Your task to perform on an android device: toggle data saver in the chrome app Image 0: 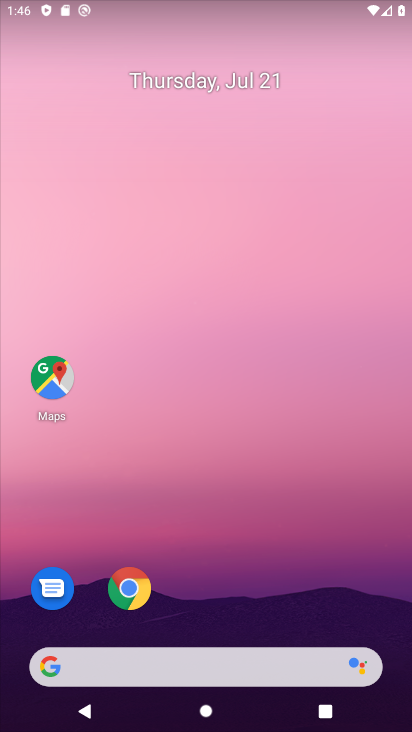
Step 0: click (131, 586)
Your task to perform on an android device: toggle data saver in the chrome app Image 1: 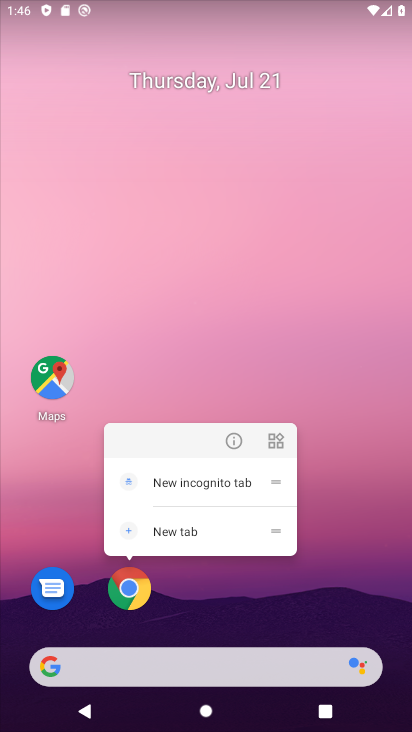
Step 1: click (131, 586)
Your task to perform on an android device: toggle data saver in the chrome app Image 2: 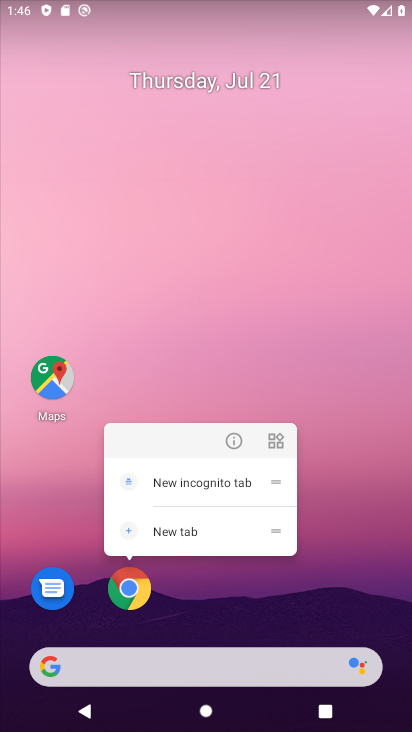
Step 2: click (131, 586)
Your task to perform on an android device: toggle data saver in the chrome app Image 3: 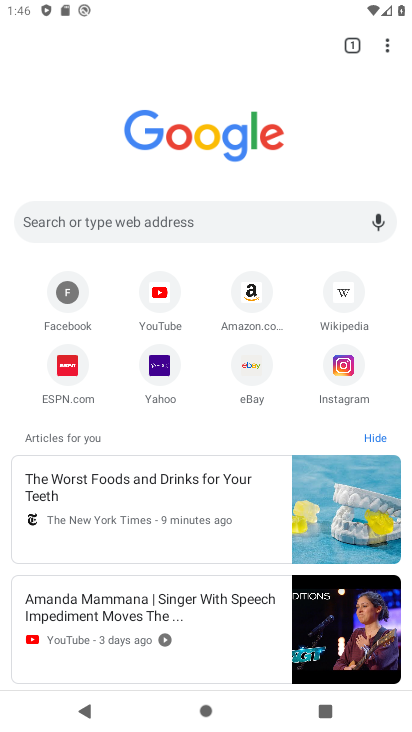
Step 3: click (387, 43)
Your task to perform on an android device: toggle data saver in the chrome app Image 4: 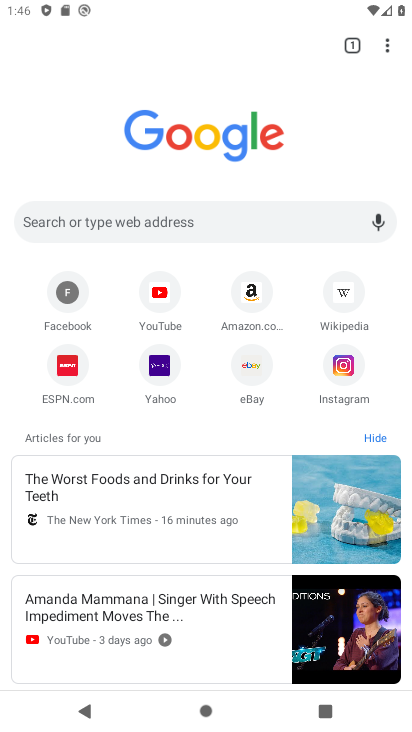
Step 4: click (387, 43)
Your task to perform on an android device: toggle data saver in the chrome app Image 5: 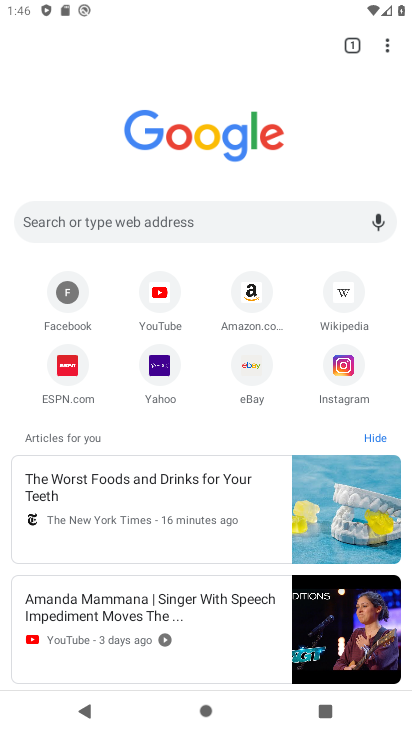
Step 5: click (387, 43)
Your task to perform on an android device: toggle data saver in the chrome app Image 6: 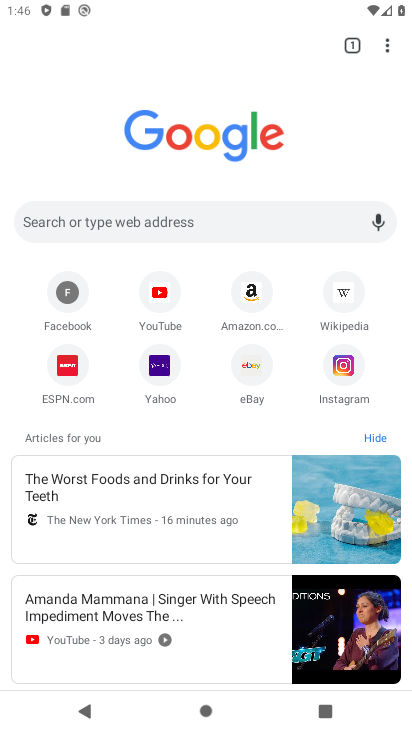
Step 6: click (387, 43)
Your task to perform on an android device: toggle data saver in the chrome app Image 7: 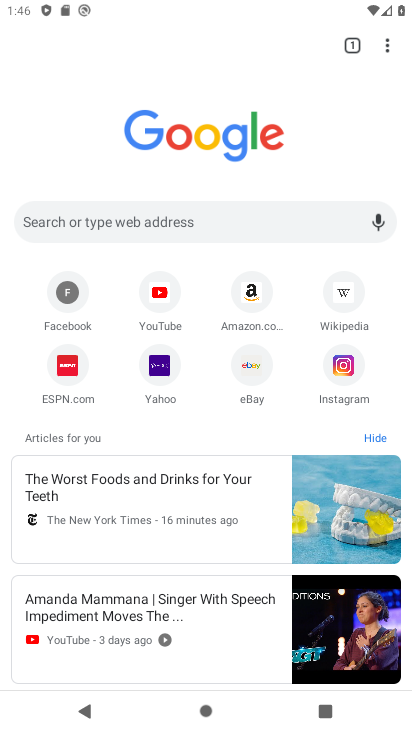
Step 7: click (387, 43)
Your task to perform on an android device: toggle data saver in the chrome app Image 8: 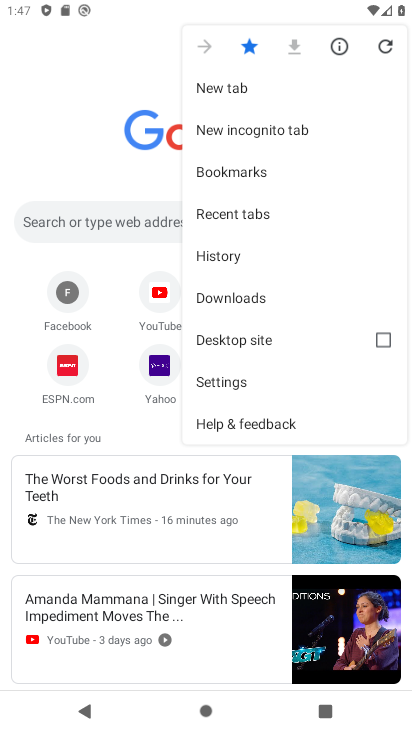
Step 8: click (224, 377)
Your task to perform on an android device: toggle data saver in the chrome app Image 9: 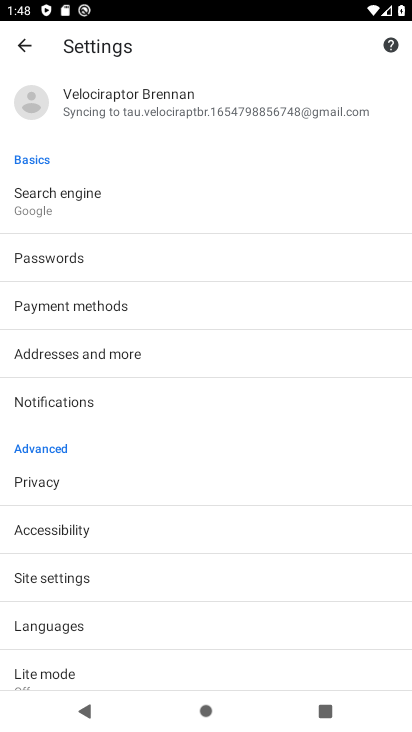
Step 9: click (57, 667)
Your task to perform on an android device: toggle data saver in the chrome app Image 10: 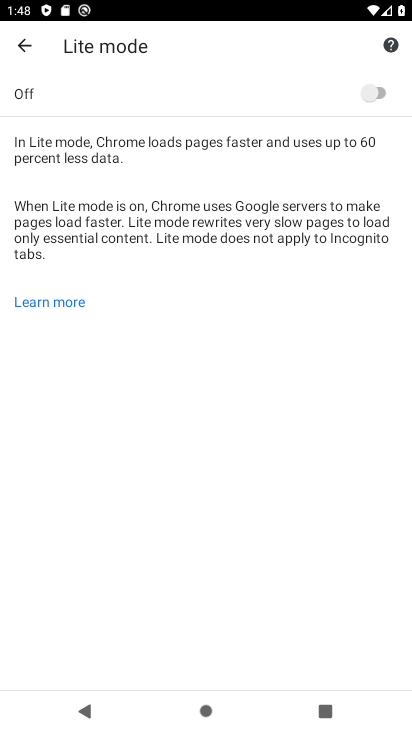
Step 10: click (371, 90)
Your task to perform on an android device: toggle data saver in the chrome app Image 11: 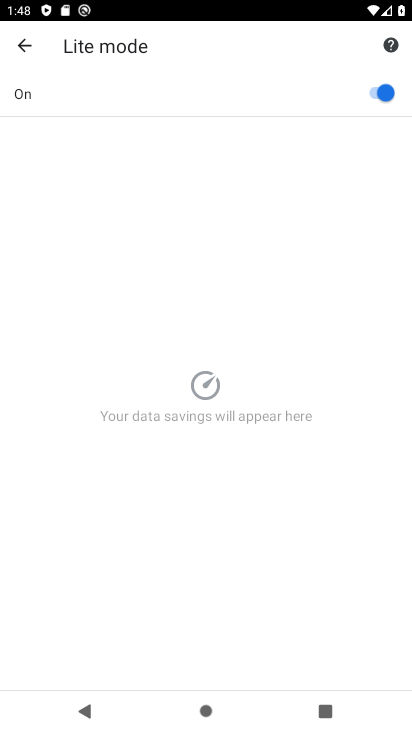
Step 11: task complete